Your task to perform on an android device: turn off data saver in the chrome app Image 0: 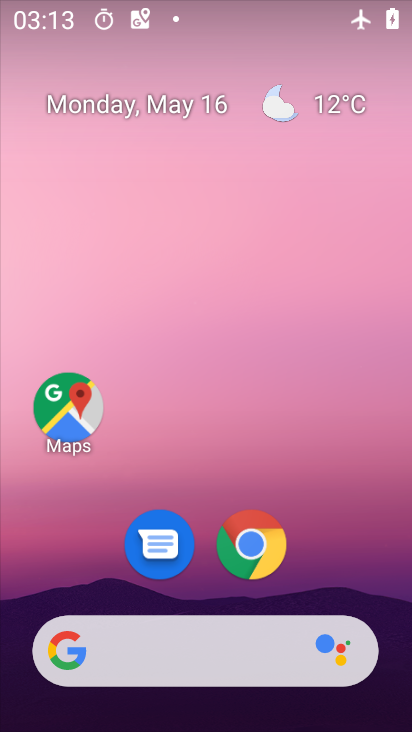
Step 0: click (257, 547)
Your task to perform on an android device: turn off data saver in the chrome app Image 1: 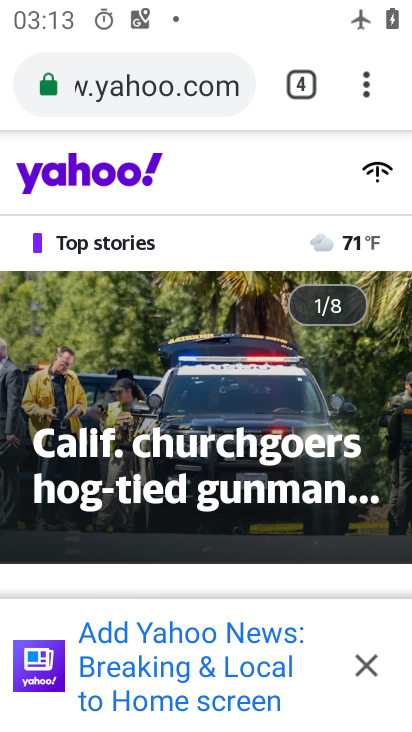
Step 1: click (368, 90)
Your task to perform on an android device: turn off data saver in the chrome app Image 2: 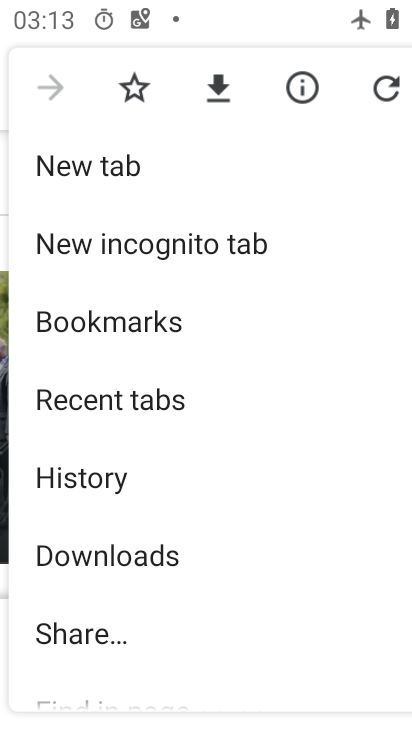
Step 2: drag from (147, 634) to (139, 339)
Your task to perform on an android device: turn off data saver in the chrome app Image 3: 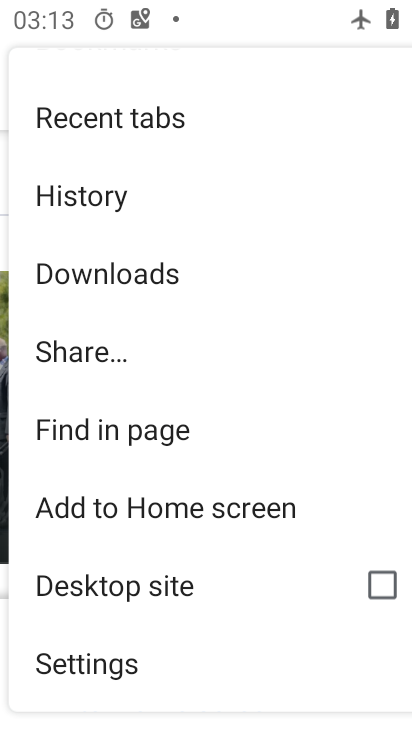
Step 3: click (124, 658)
Your task to perform on an android device: turn off data saver in the chrome app Image 4: 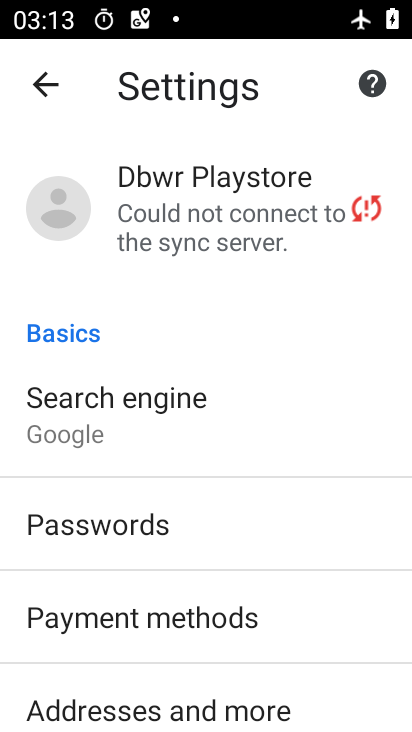
Step 4: drag from (167, 663) to (162, 264)
Your task to perform on an android device: turn off data saver in the chrome app Image 5: 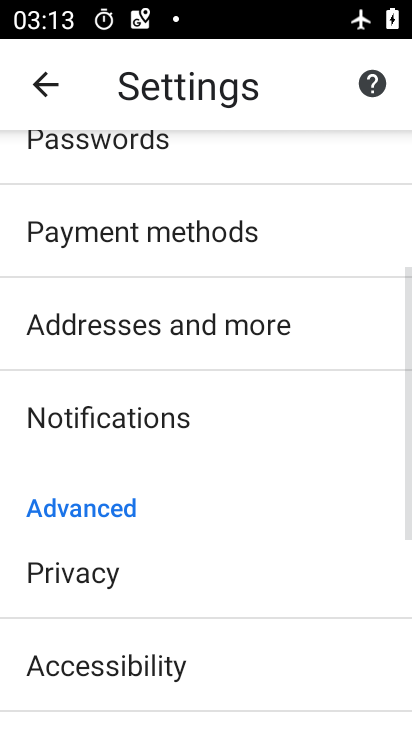
Step 5: drag from (152, 573) to (157, 288)
Your task to perform on an android device: turn off data saver in the chrome app Image 6: 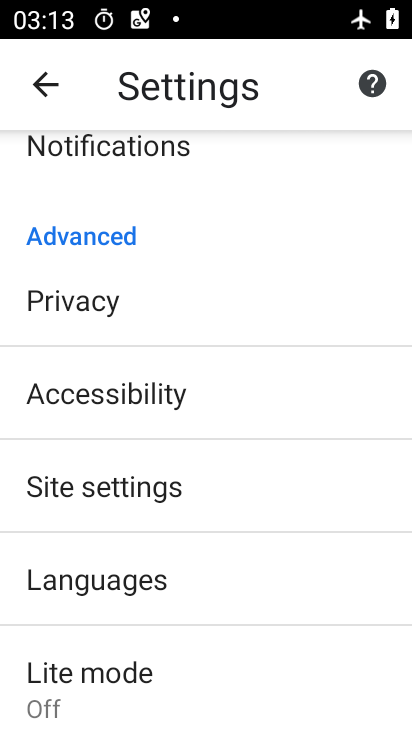
Step 6: click (86, 675)
Your task to perform on an android device: turn off data saver in the chrome app Image 7: 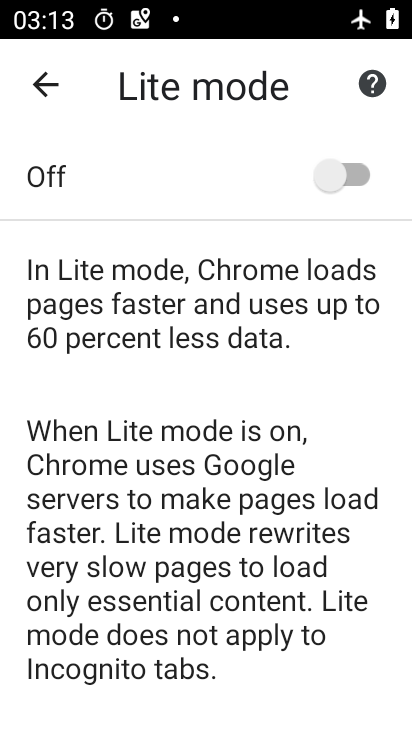
Step 7: task complete